Your task to perform on an android device: allow notifications from all sites in the chrome app Image 0: 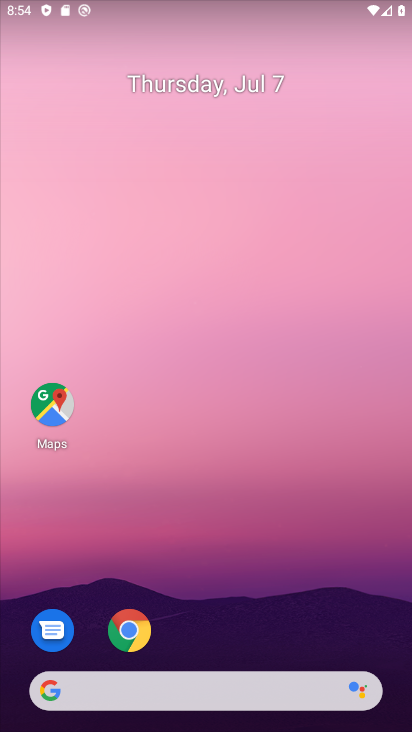
Step 0: drag from (265, 641) to (151, 125)
Your task to perform on an android device: allow notifications from all sites in the chrome app Image 1: 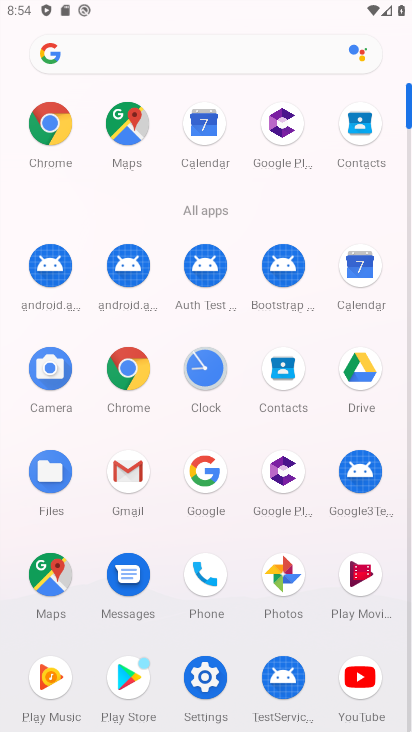
Step 1: click (129, 370)
Your task to perform on an android device: allow notifications from all sites in the chrome app Image 2: 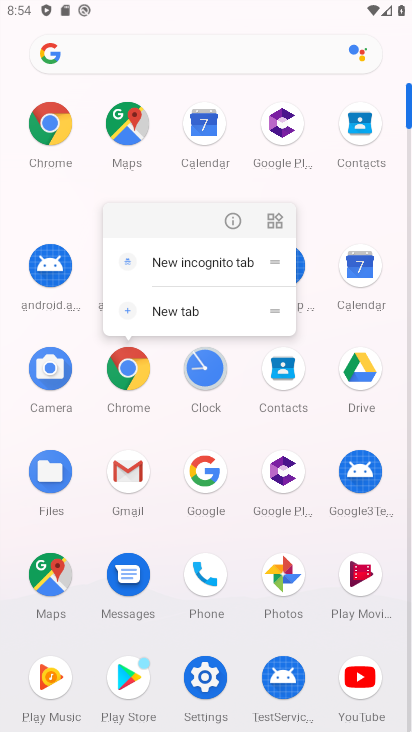
Step 2: click (232, 215)
Your task to perform on an android device: allow notifications from all sites in the chrome app Image 3: 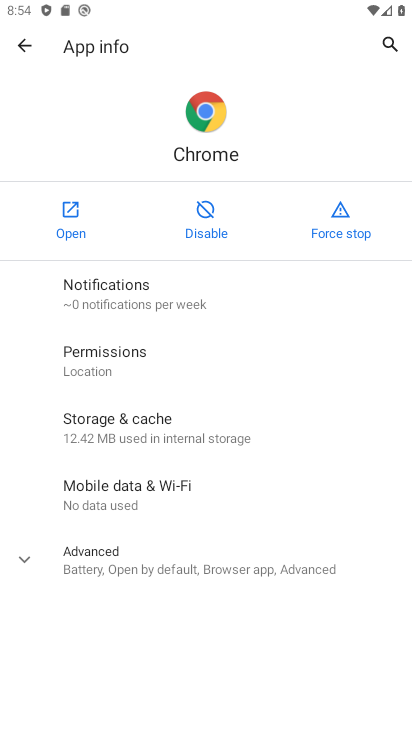
Step 3: click (20, 38)
Your task to perform on an android device: allow notifications from all sites in the chrome app Image 4: 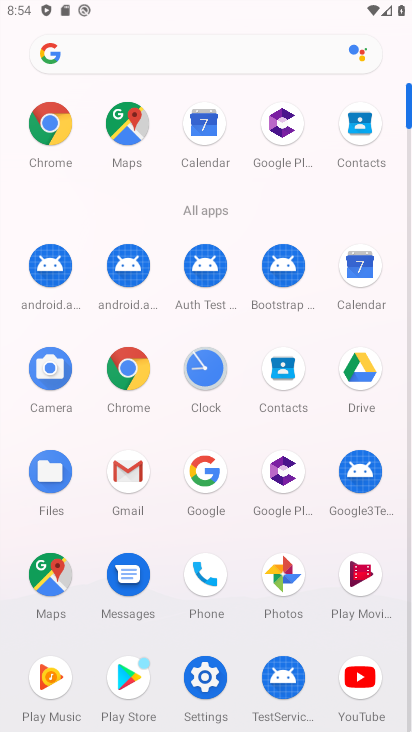
Step 4: click (141, 372)
Your task to perform on an android device: allow notifications from all sites in the chrome app Image 5: 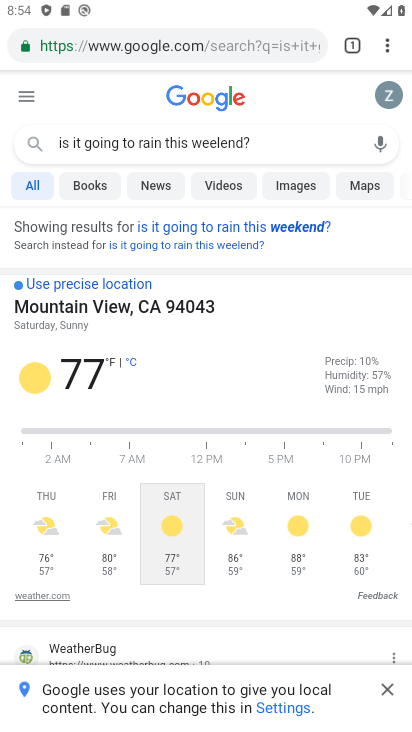
Step 5: drag from (385, 50) to (219, 497)
Your task to perform on an android device: allow notifications from all sites in the chrome app Image 6: 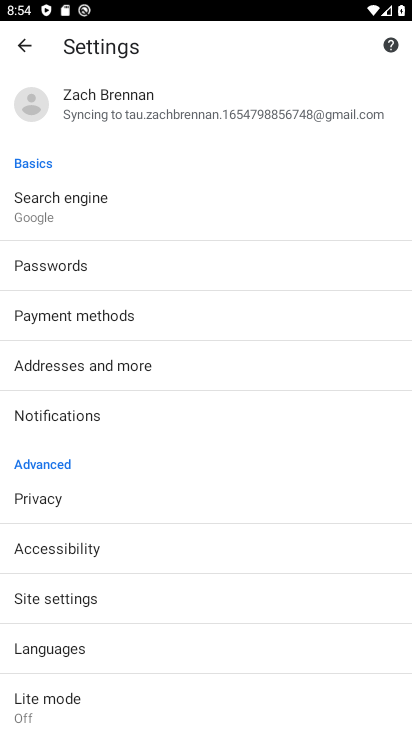
Step 6: click (62, 594)
Your task to perform on an android device: allow notifications from all sites in the chrome app Image 7: 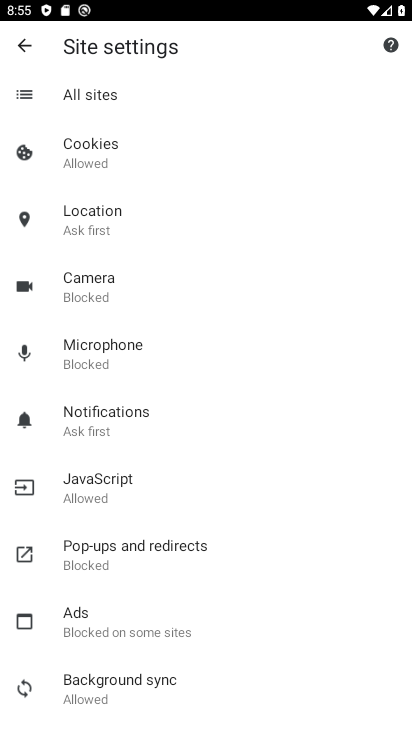
Step 7: click (90, 96)
Your task to perform on an android device: allow notifications from all sites in the chrome app Image 8: 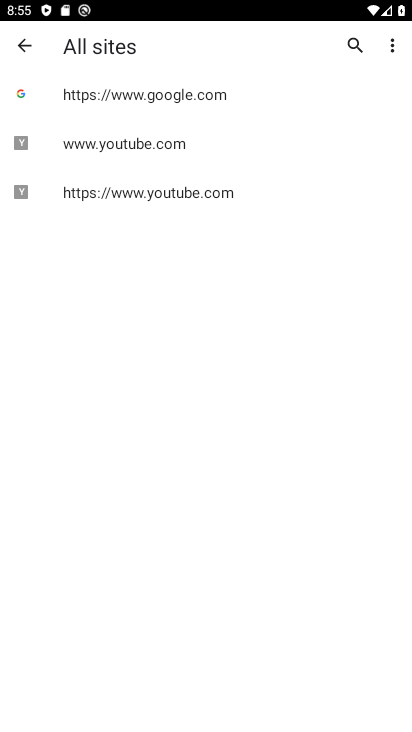
Step 8: click (105, 103)
Your task to perform on an android device: allow notifications from all sites in the chrome app Image 9: 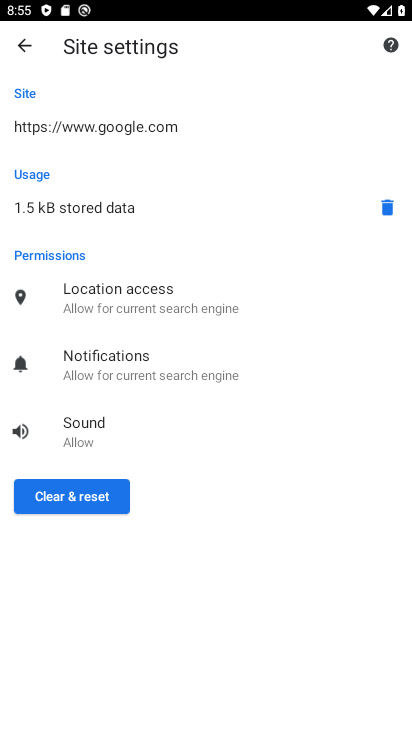
Step 9: click (92, 364)
Your task to perform on an android device: allow notifications from all sites in the chrome app Image 10: 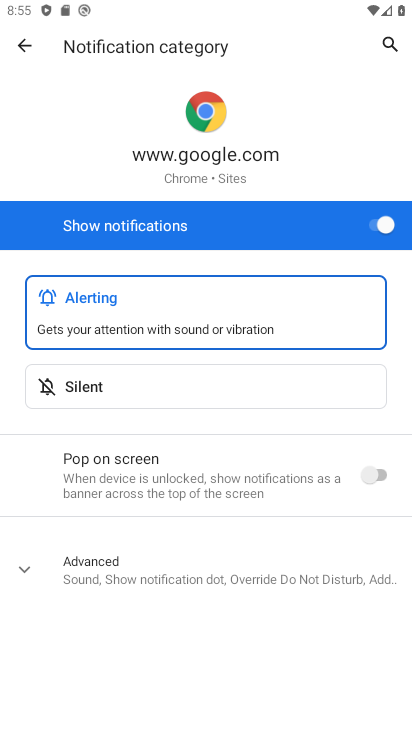
Step 10: task complete